Your task to perform on an android device: turn on showing notifications on the lock screen Image 0: 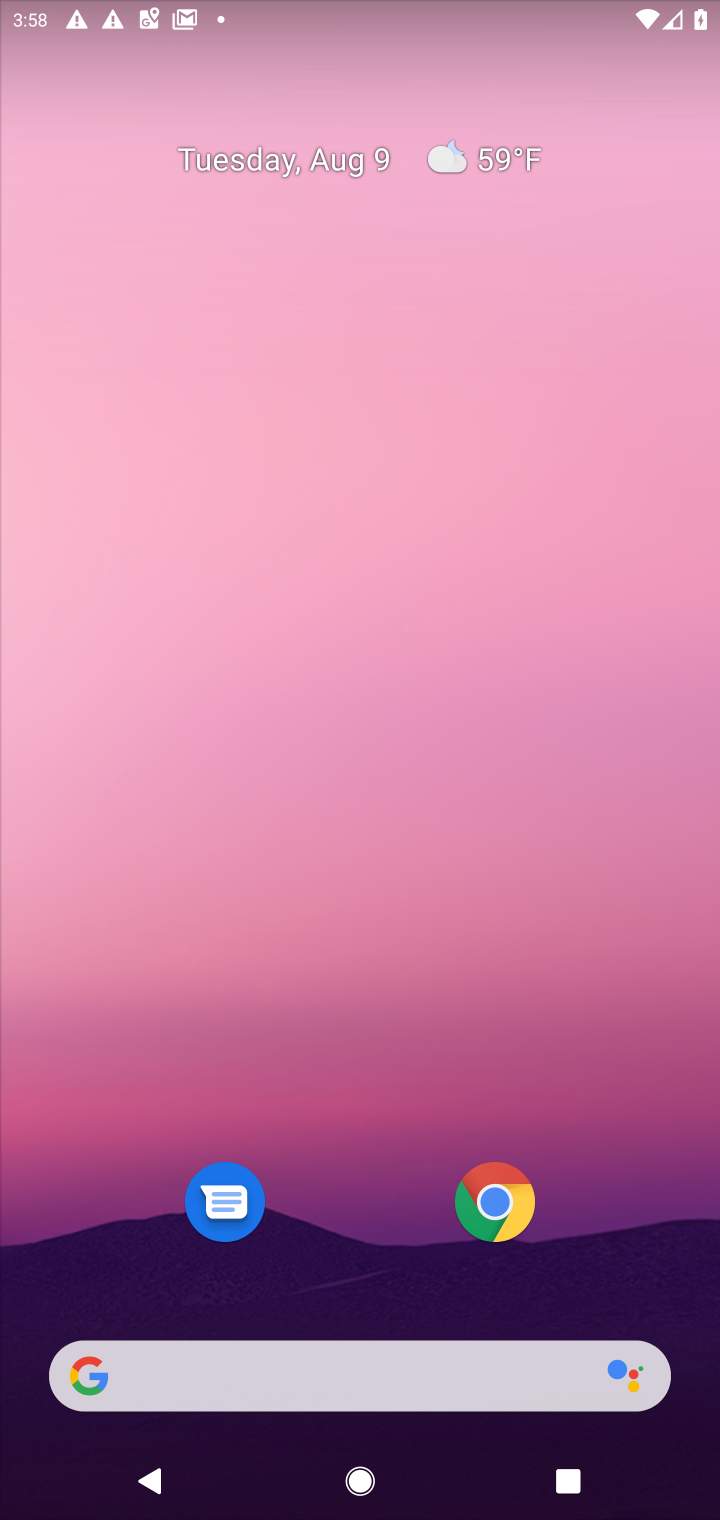
Step 0: press home button
Your task to perform on an android device: turn on showing notifications on the lock screen Image 1: 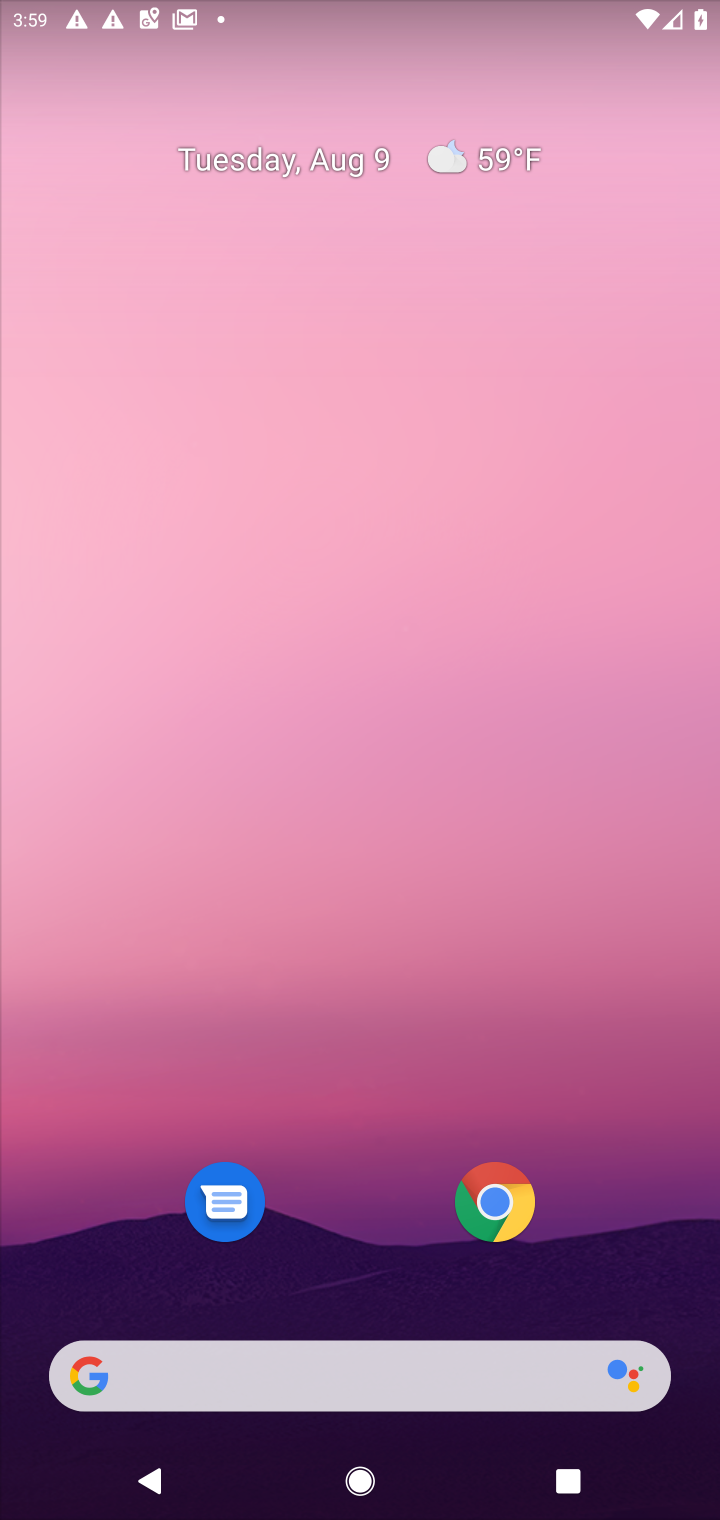
Step 1: drag from (409, 1110) to (480, 468)
Your task to perform on an android device: turn on showing notifications on the lock screen Image 2: 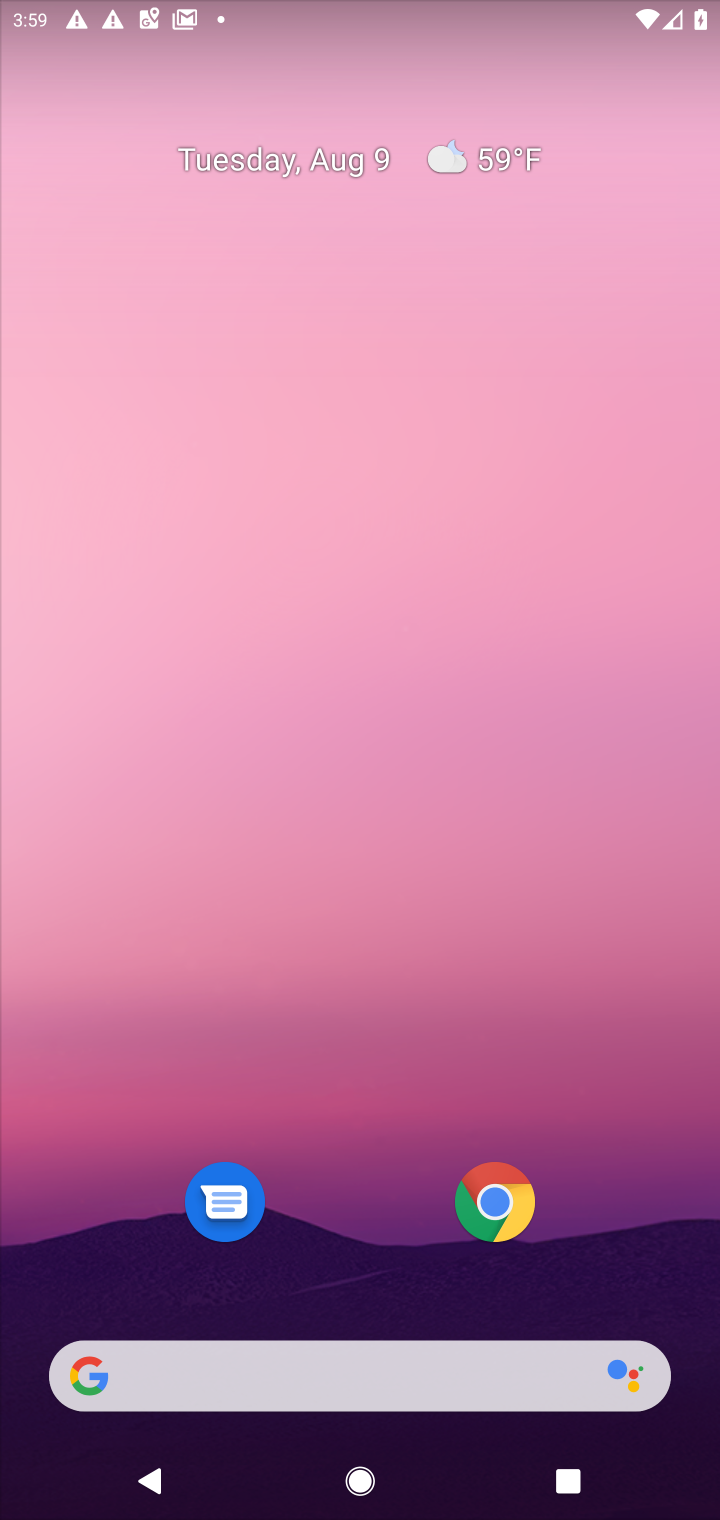
Step 2: drag from (373, 1279) to (469, 158)
Your task to perform on an android device: turn on showing notifications on the lock screen Image 3: 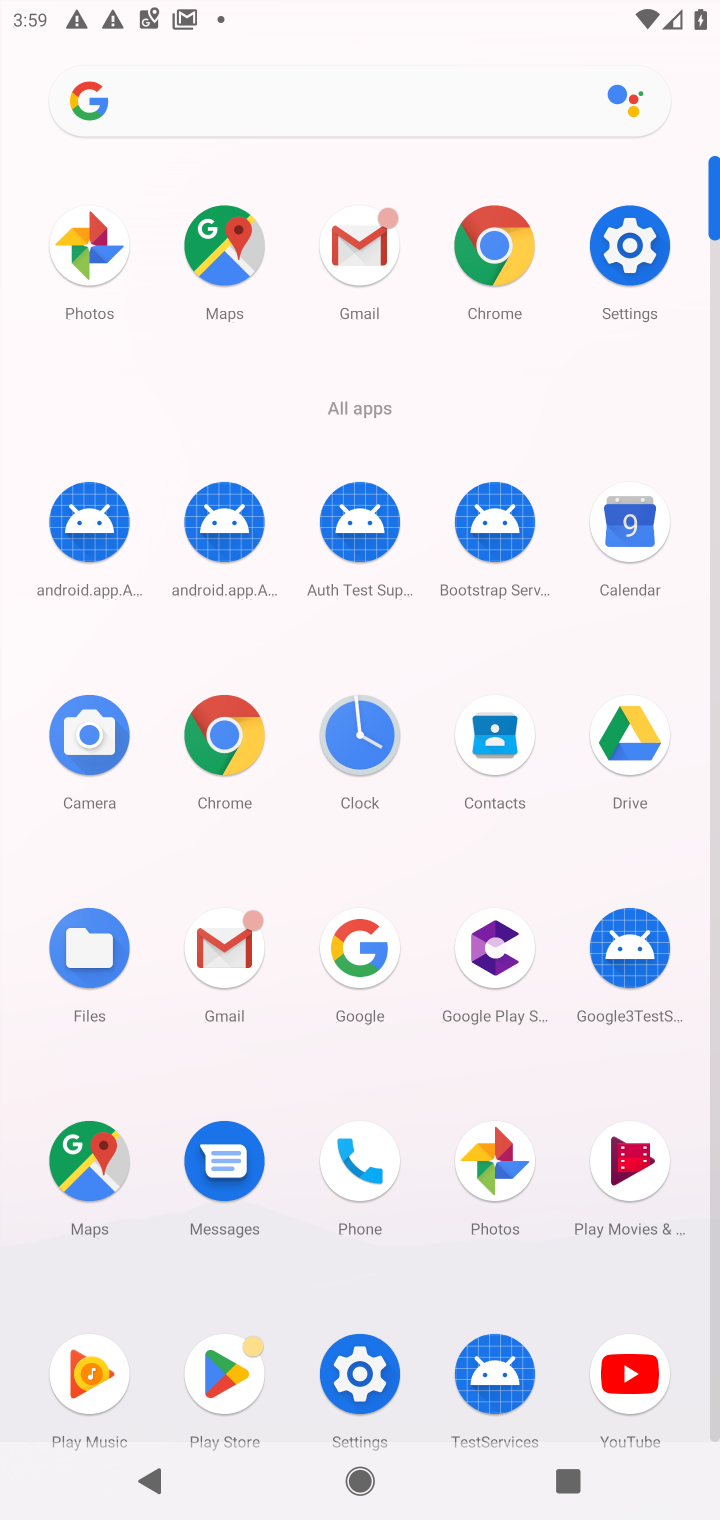
Step 3: click (357, 1356)
Your task to perform on an android device: turn on showing notifications on the lock screen Image 4: 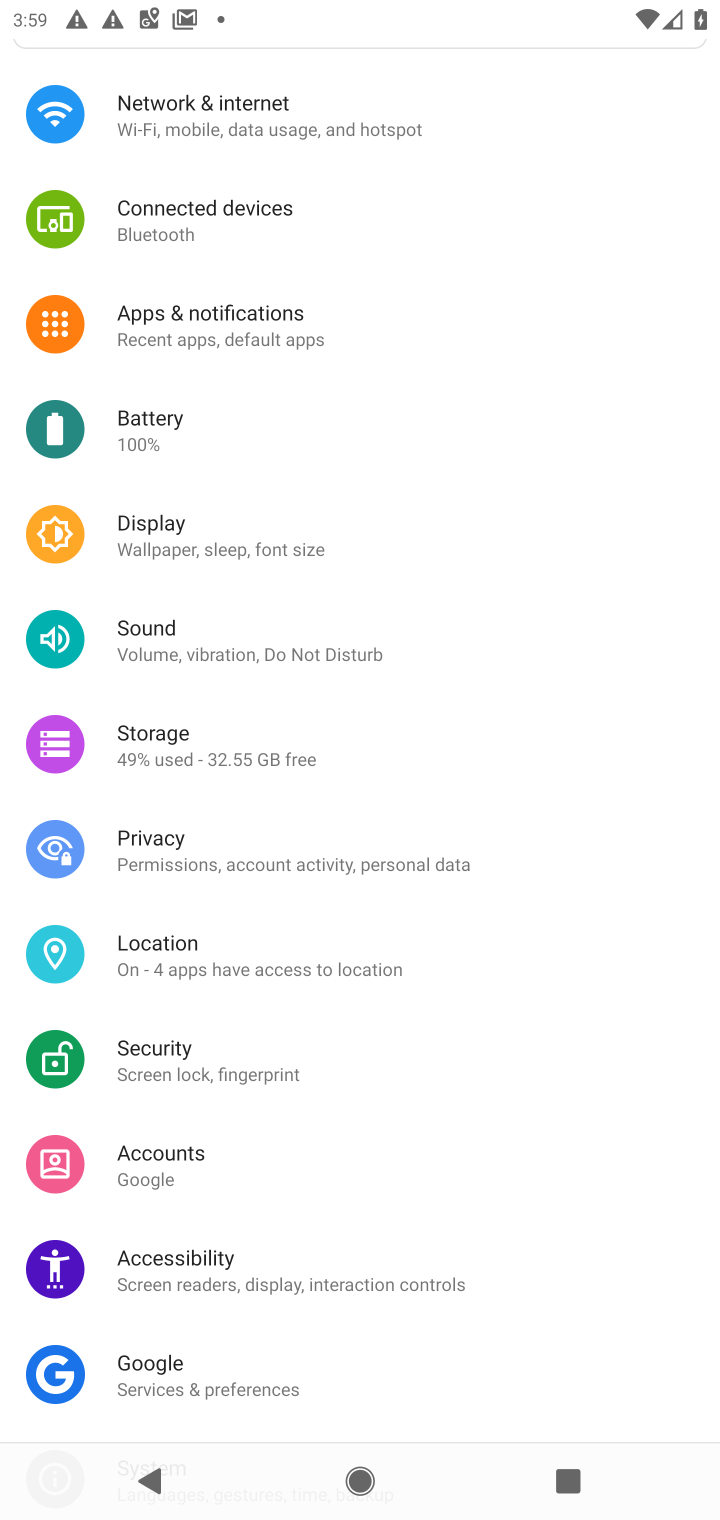
Step 4: click (208, 313)
Your task to perform on an android device: turn on showing notifications on the lock screen Image 5: 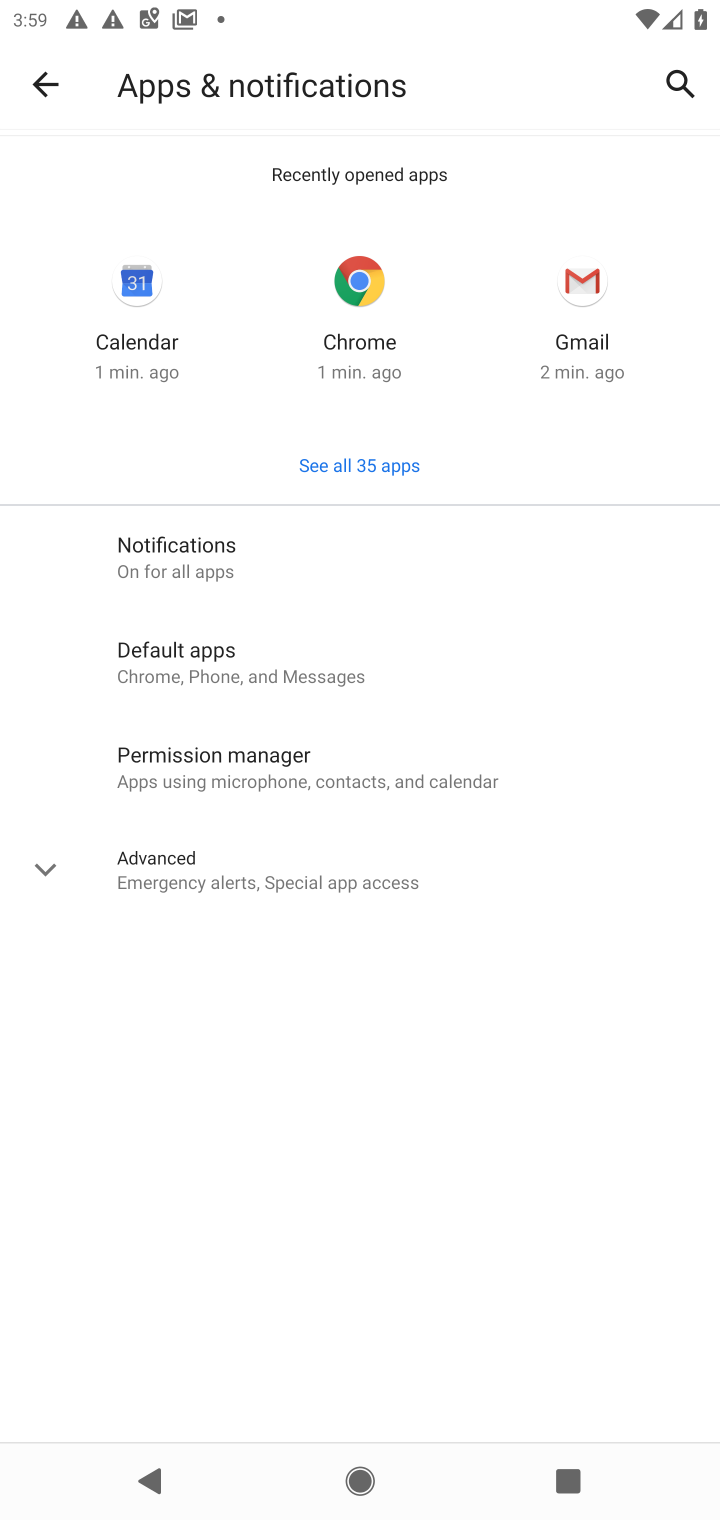
Step 5: click (283, 533)
Your task to perform on an android device: turn on showing notifications on the lock screen Image 6: 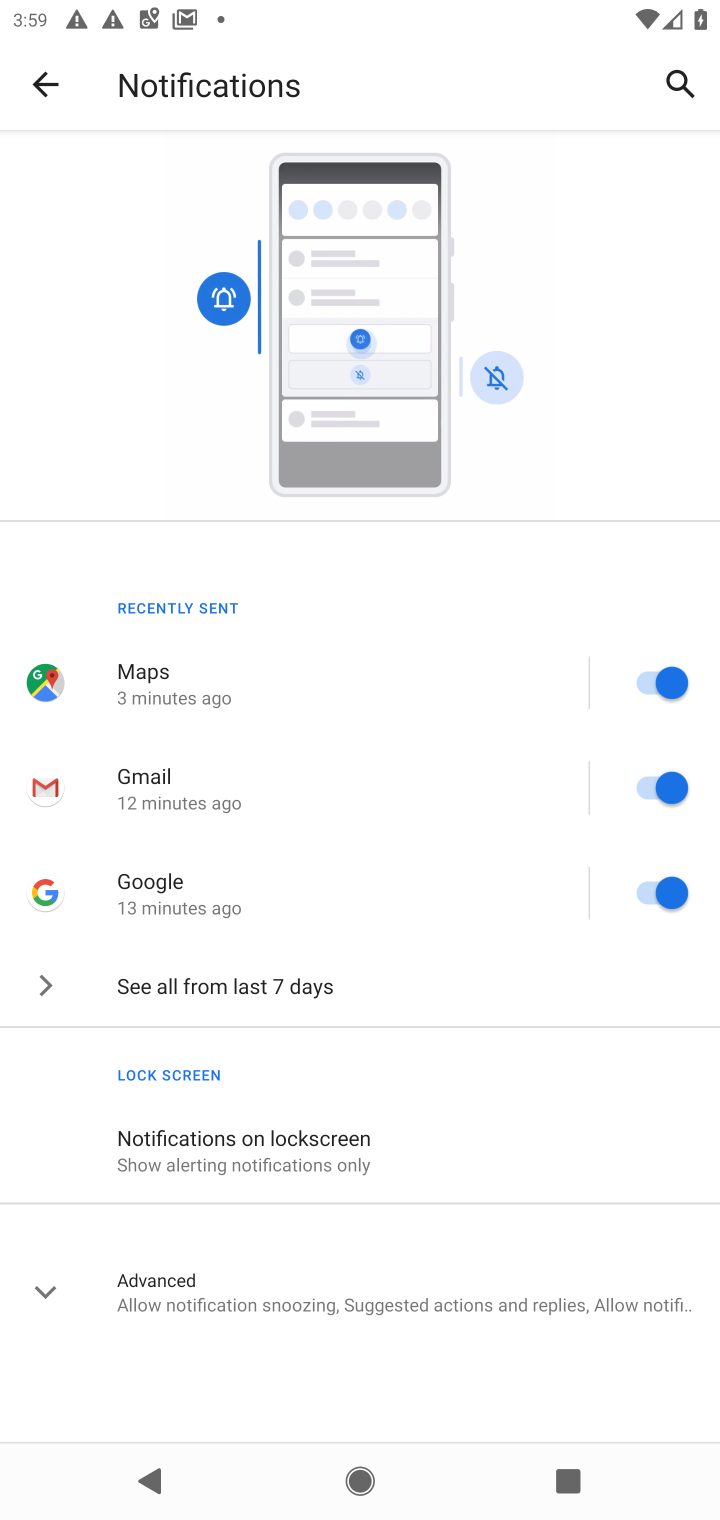
Step 6: click (194, 1134)
Your task to perform on an android device: turn on showing notifications on the lock screen Image 7: 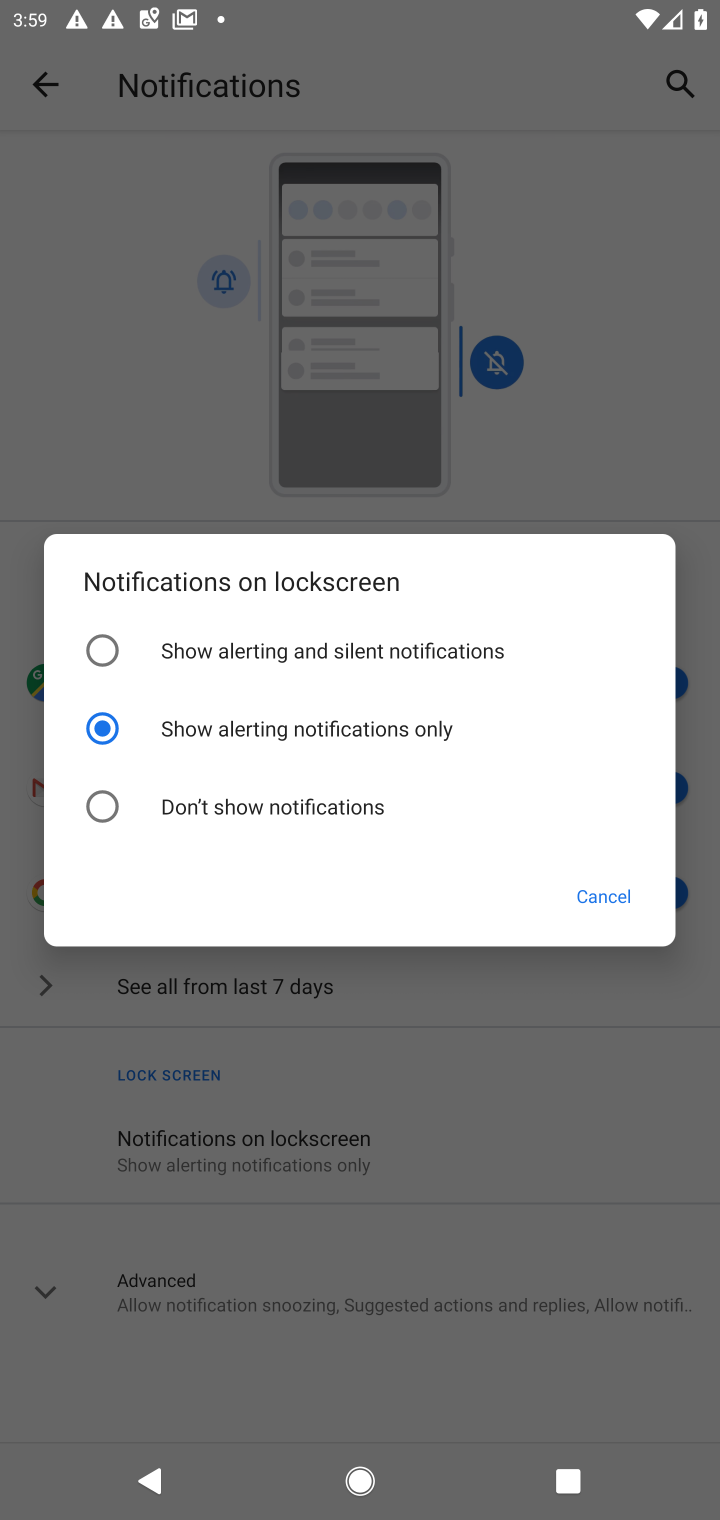
Step 7: click (116, 643)
Your task to perform on an android device: turn on showing notifications on the lock screen Image 8: 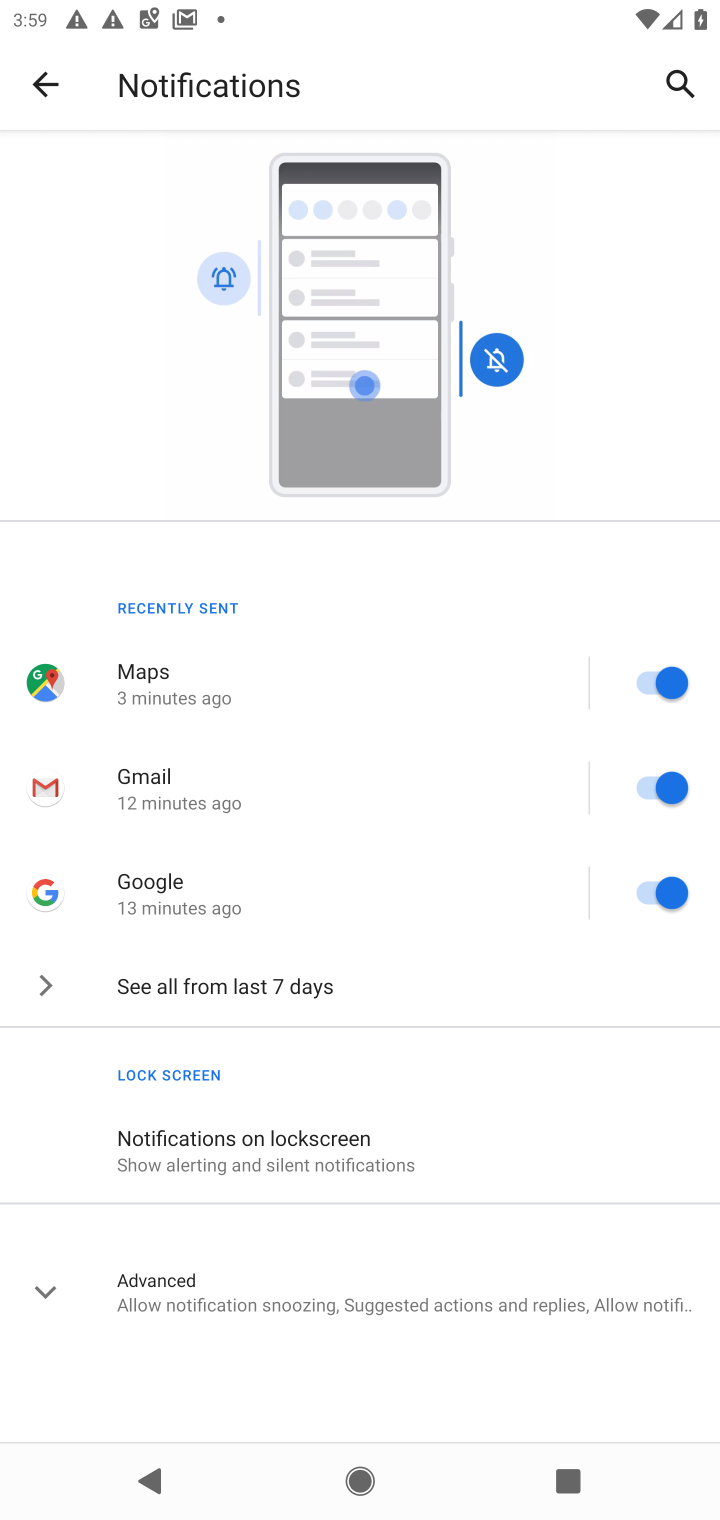
Step 8: task complete